Your task to perform on an android device: turn on the 24-hour format for clock Image 0: 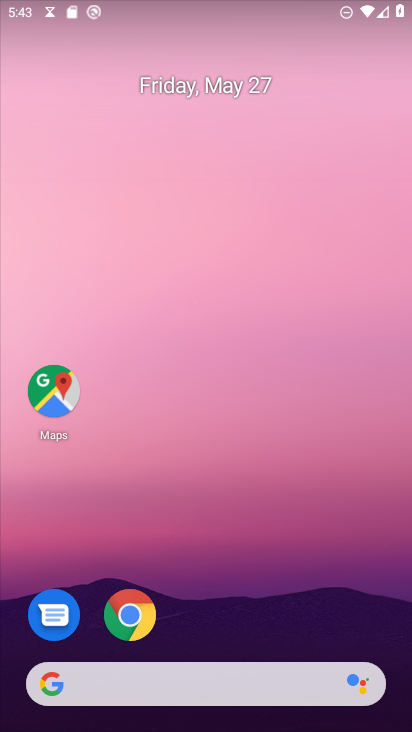
Step 0: drag from (301, 586) to (173, 21)
Your task to perform on an android device: turn on the 24-hour format for clock Image 1: 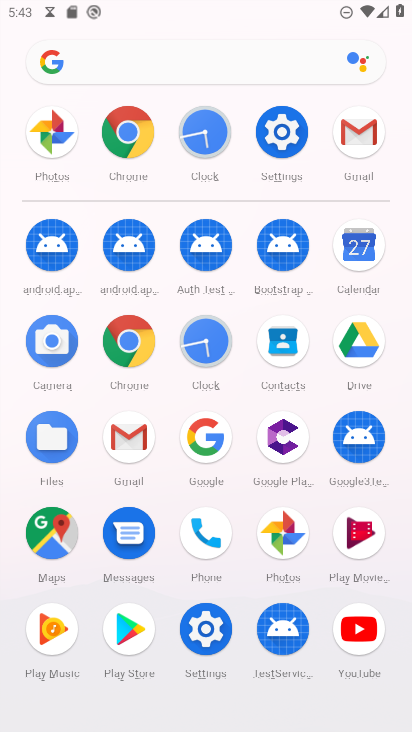
Step 1: click (206, 338)
Your task to perform on an android device: turn on the 24-hour format for clock Image 2: 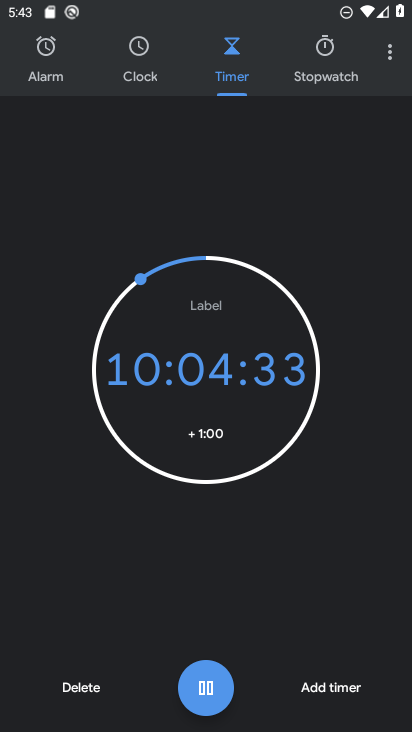
Step 2: click (389, 57)
Your task to perform on an android device: turn on the 24-hour format for clock Image 3: 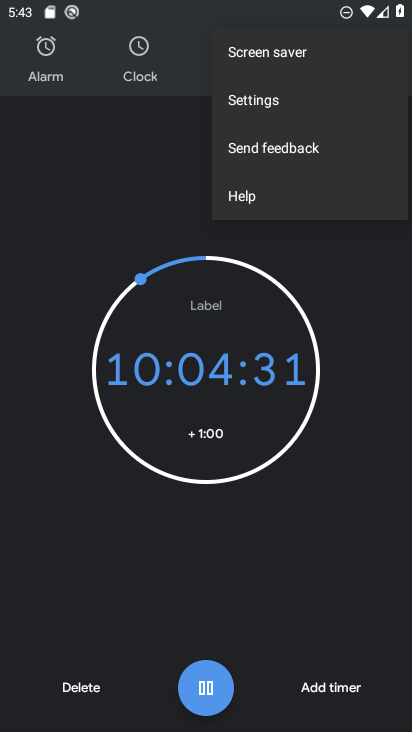
Step 3: click (285, 103)
Your task to perform on an android device: turn on the 24-hour format for clock Image 4: 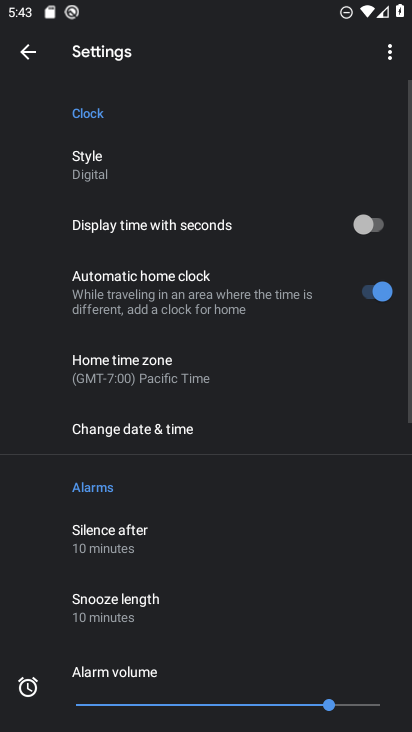
Step 4: click (188, 431)
Your task to perform on an android device: turn on the 24-hour format for clock Image 5: 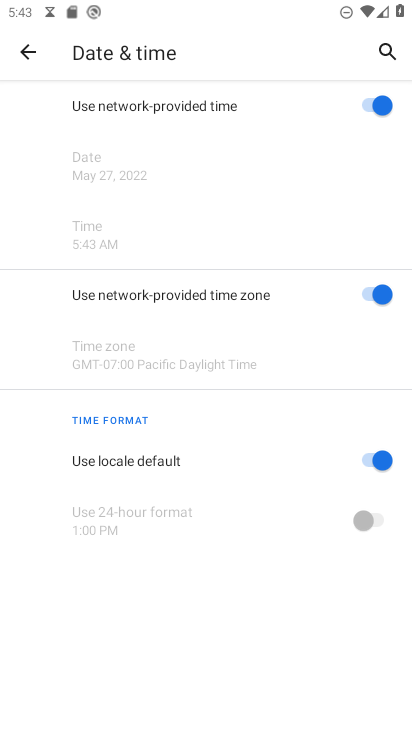
Step 5: click (375, 466)
Your task to perform on an android device: turn on the 24-hour format for clock Image 6: 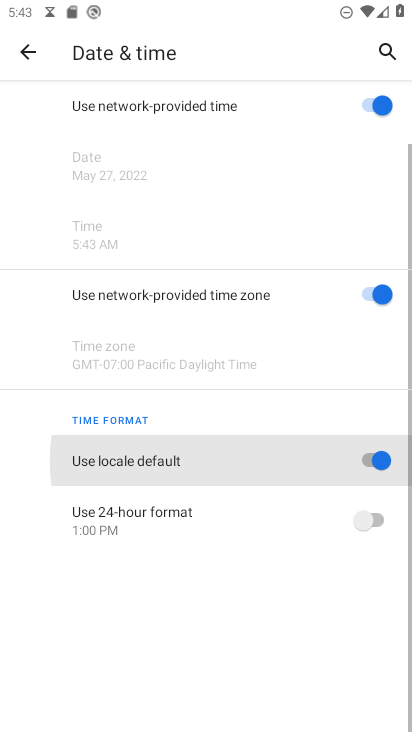
Step 6: click (365, 512)
Your task to perform on an android device: turn on the 24-hour format for clock Image 7: 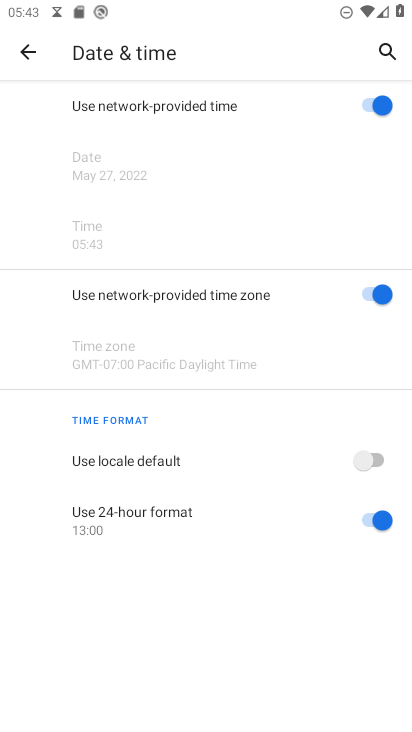
Step 7: task complete